Your task to perform on an android device: set default search engine in the chrome app Image 0: 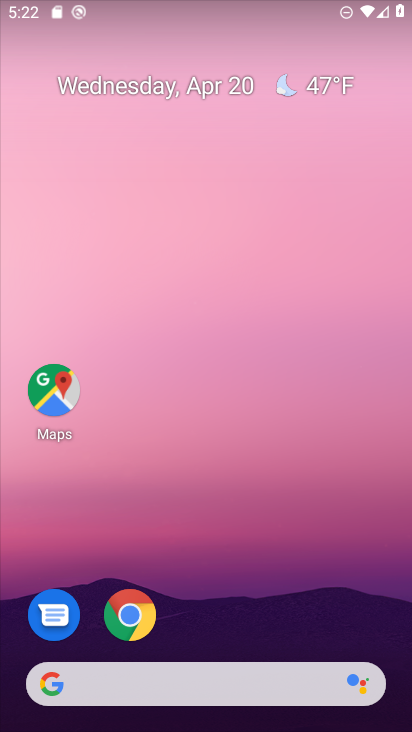
Step 0: click (137, 612)
Your task to perform on an android device: set default search engine in the chrome app Image 1: 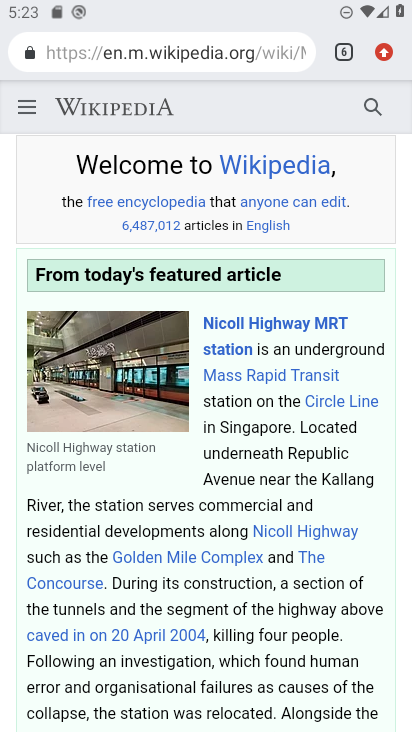
Step 1: click (385, 51)
Your task to perform on an android device: set default search engine in the chrome app Image 2: 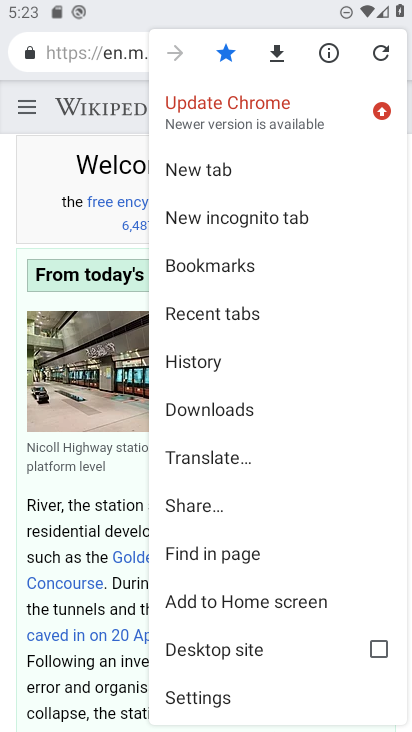
Step 2: click (217, 693)
Your task to perform on an android device: set default search engine in the chrome app Image 3: 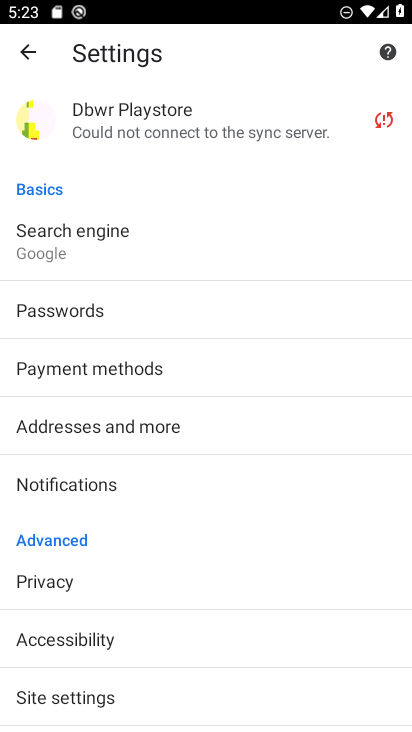
Step 3: click (62, 233)
Your task to perform on an android device: set default search engine in the chrome app Image 4: 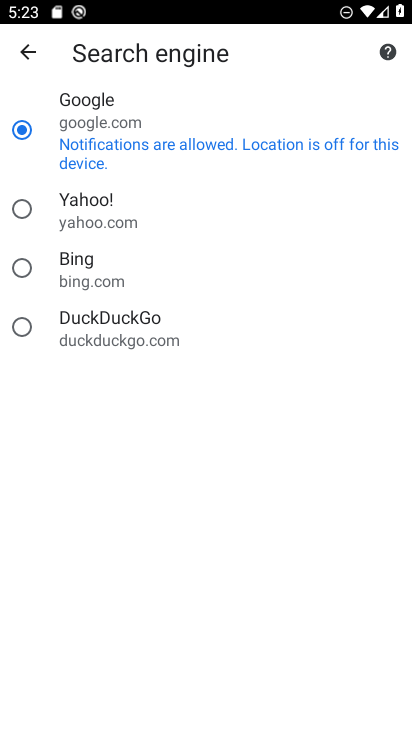
Step 4: click (27, 214)
Your task to perform on an android device: set default search engine in the chrome app Image 5: 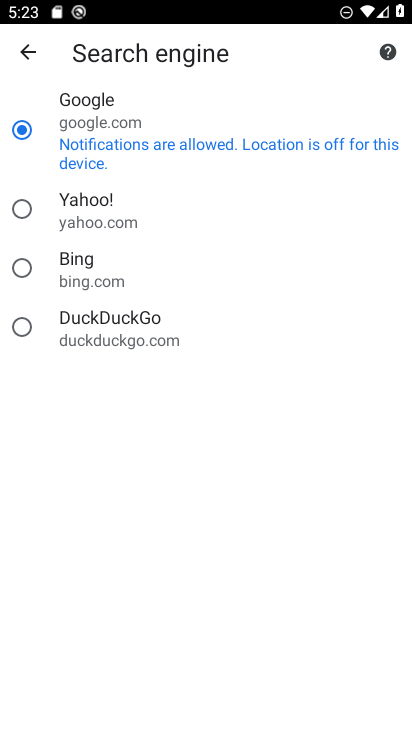
Step 5: click (27, 213)
Your task to perform on an android device: set default search engine in the chrome app Image 6: 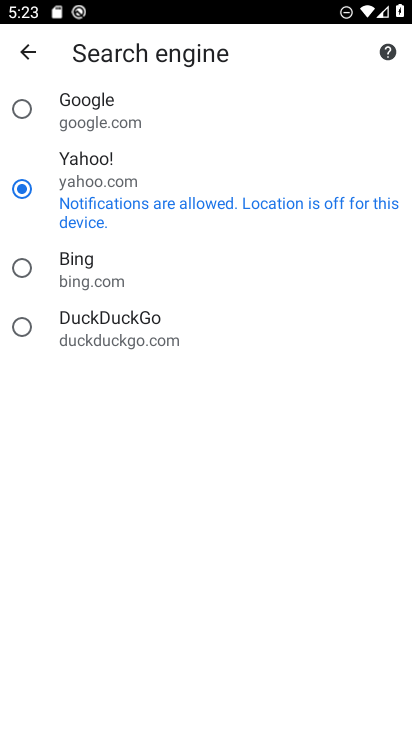
Step 6: task complete